Your task to perform on an android device: Open settings Image 0: 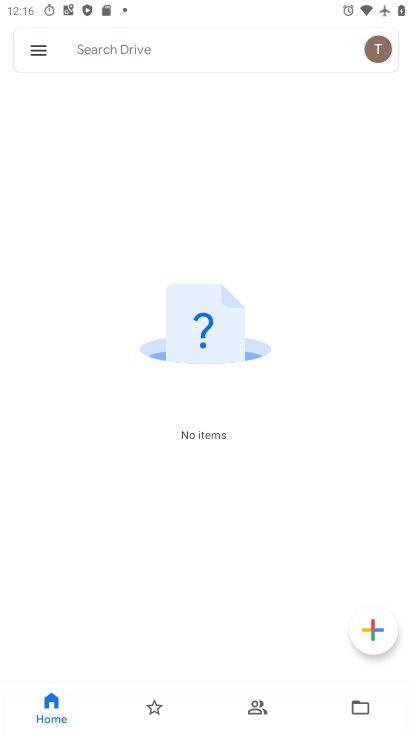
Step 0: press home button
Your task to perform on an android device: Open settings Image 1: 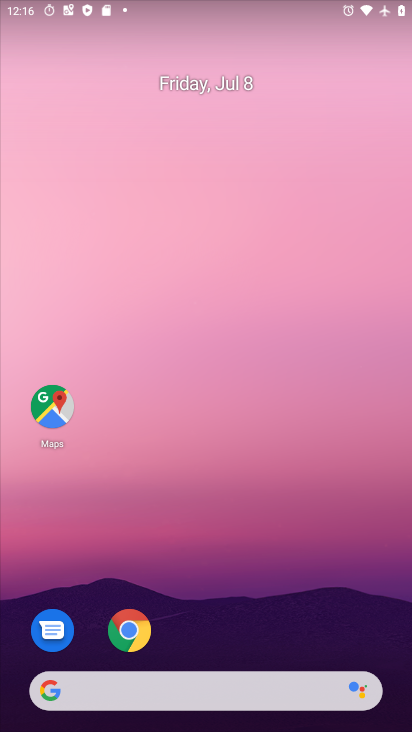
Step 1: drag from (232, 619) to (240, 46)
Your task to perform on an android device: Open settings Image 2: 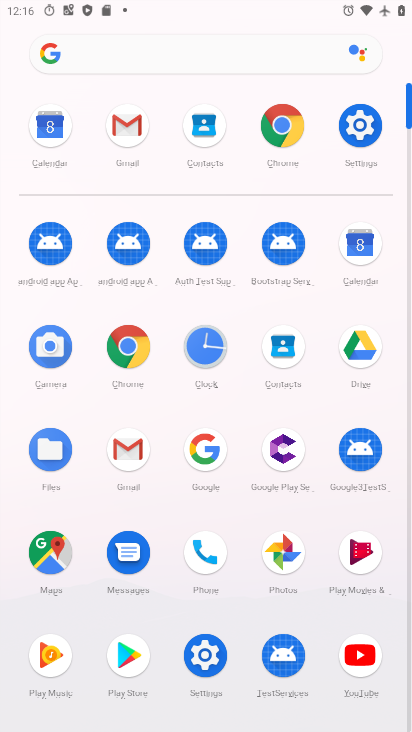
Step 2: click (347, 146)
Your task to perform on an android device: Open settings Image 3: 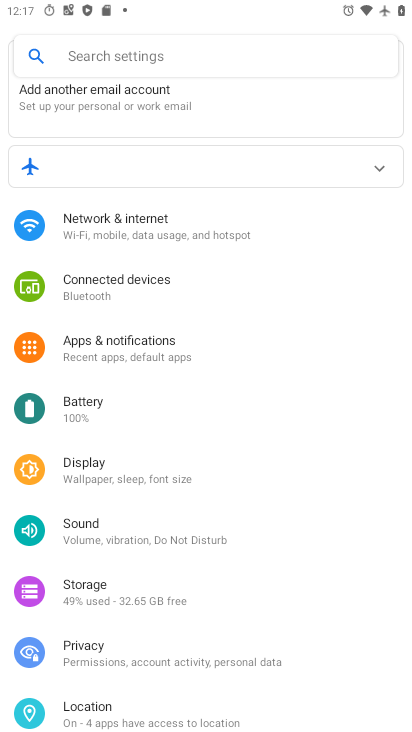
Step 3: task complete